Your task to perform on an android device: change the clock display to analog Image 0: 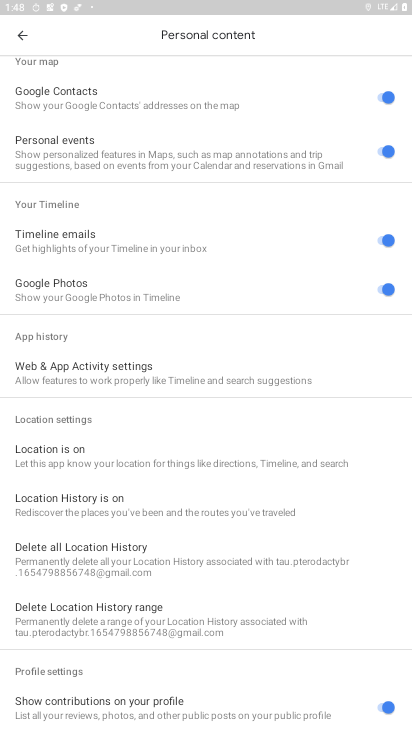
Step 0: press home button
Your task to perform on an android device: change the clock display to analog Image 1: 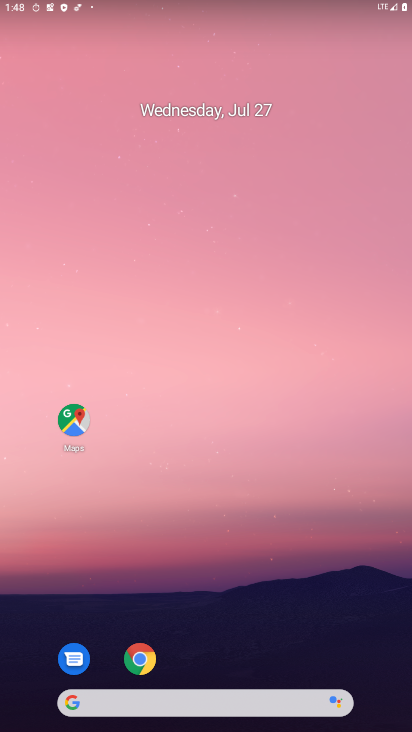
Step 1: drag from (285, 560) to (322, 119)
Your task to perform on an android device: change the clock display to analog Image 2: 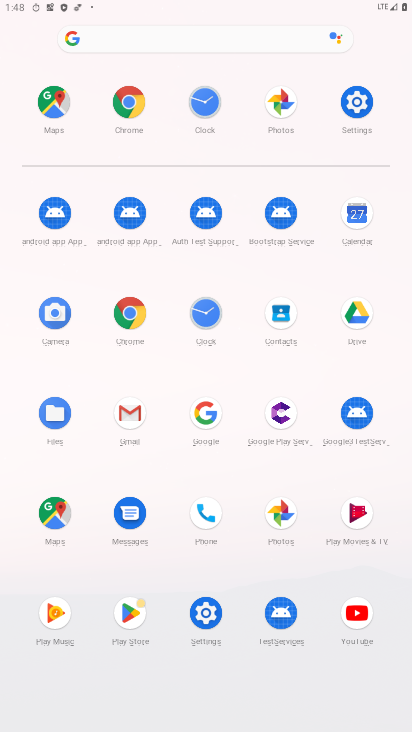
Step 2: click (211, 314)
Your task to perform on an android device: change the clock display to analog Image 3: 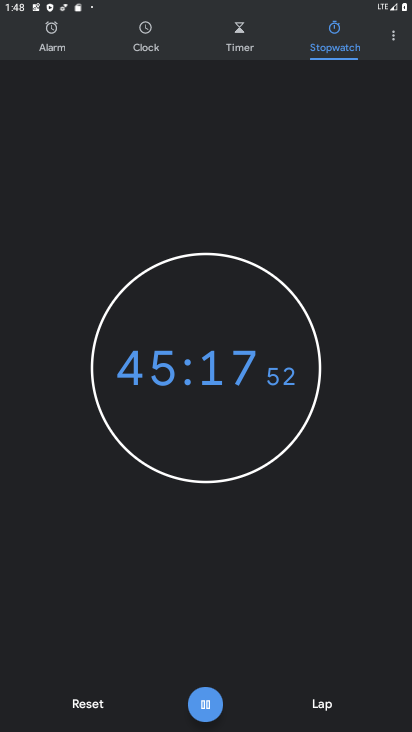
Step 3: click (392, 37)
Your task to perform on an android device: change the clock display to analog Image 4: 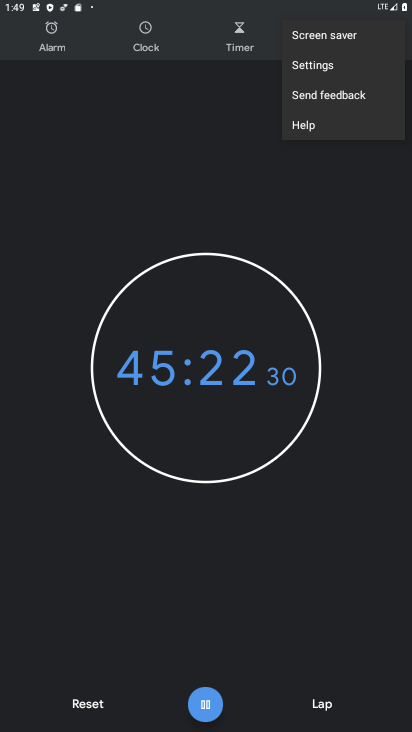
Step 4: click (308, 69)
Your task to perform on an android device: change the clock display to analog Image 5: 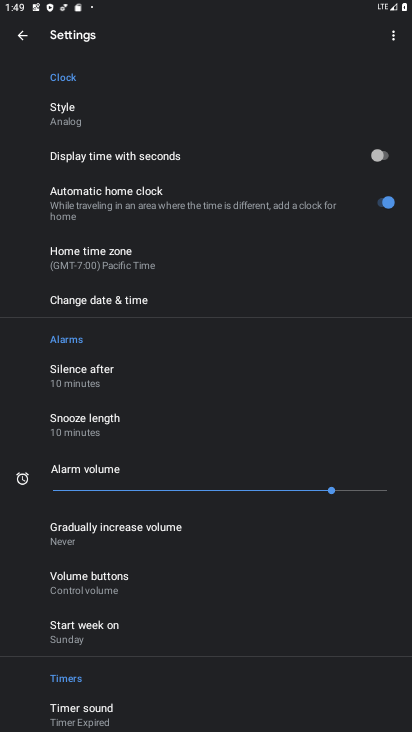
Step 5: task complete